Your task to perform on an android device: add a contact in the contacts app Image 0: 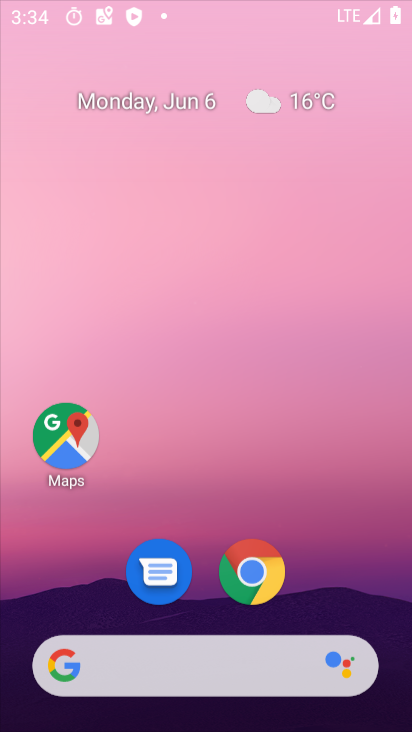
Step 0: drag from (368, 441) to (368, 204)
Your task to perform on an android device: add a contact in the contacts app Image 1: 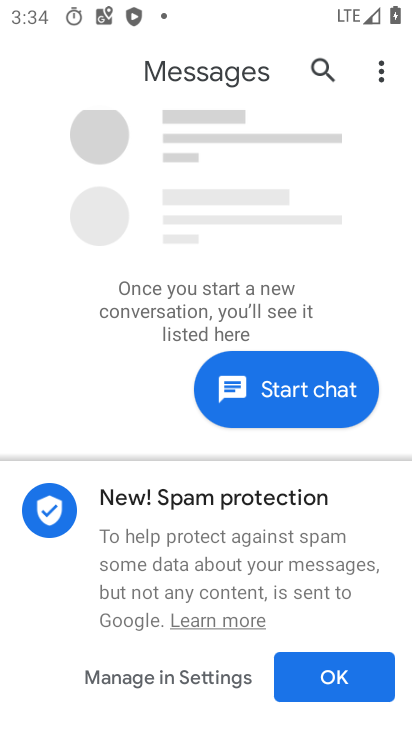
Step 1: press home button
Your task to perform on an android device: add a contact in the contacts app Image 2: 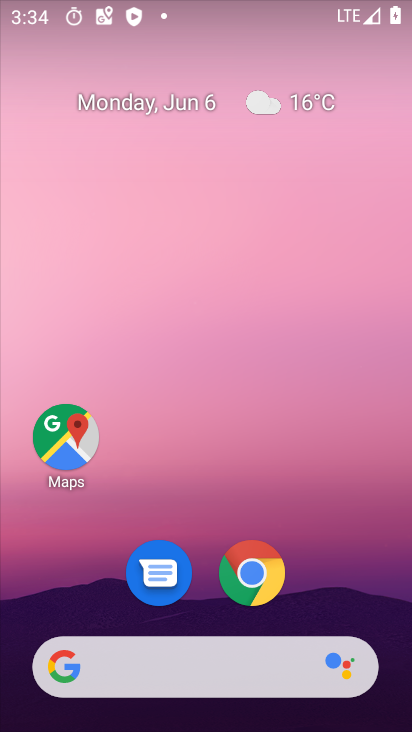
Step 2: drag from (360, 592) to (369, 202)
Your task to perform on an android device: add a contact in the contacts app Image 3: 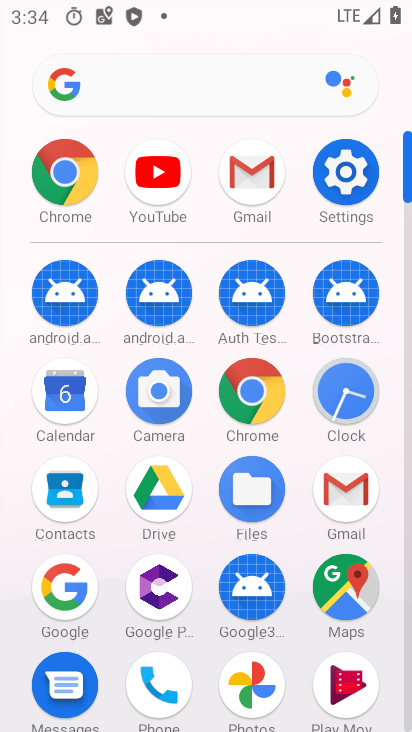
Step 3: click (78, 497)
Your task to perform on an android device: add a contact in the contacts app Image 4: 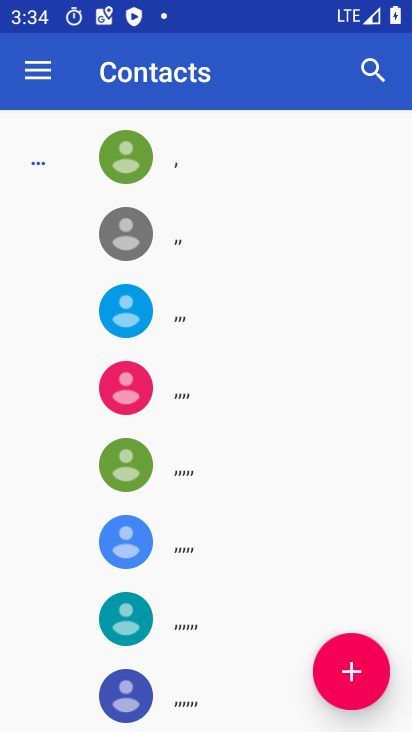
Step 4: click (341, 672)
Your task to perform on an android device: add a contact in the contacts app Image 5: 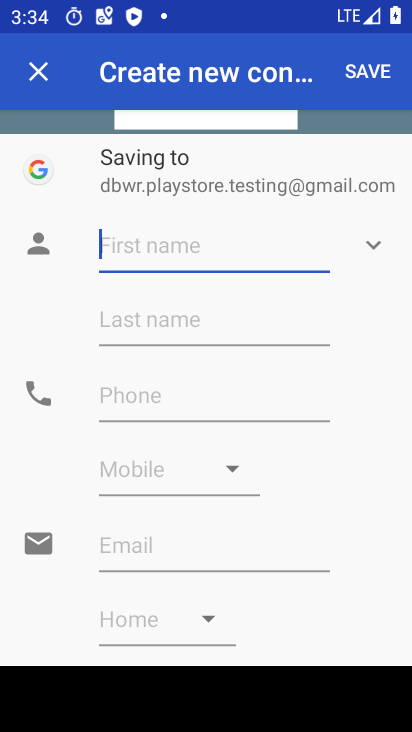
Step 5: click (196, 247)
Your task to perform on an android device: add a contact in the contacts app Image 6: 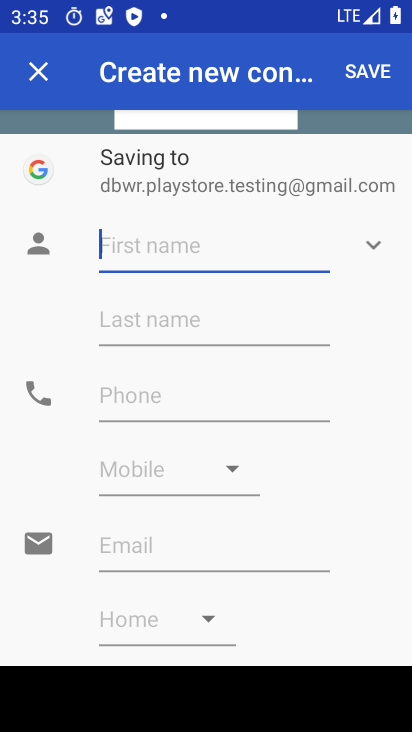
Step 6: type "bbbbb"
Your task to perform on an android device: add a contact in the contacts app Image 7: 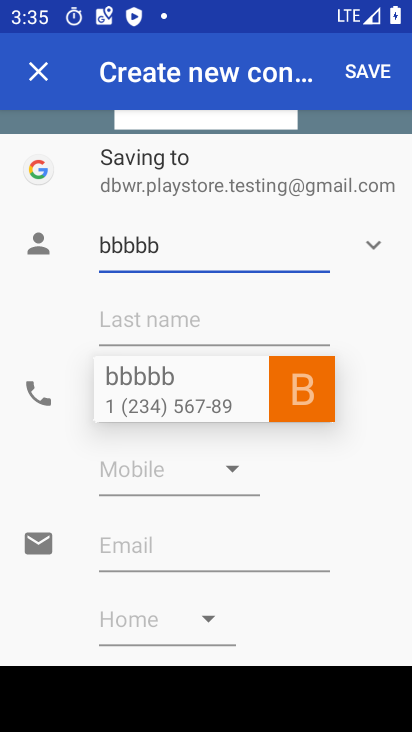
Step 7: click (409, 394)
Your task to perform on an android device: add a contact in the contacts app Image 8: 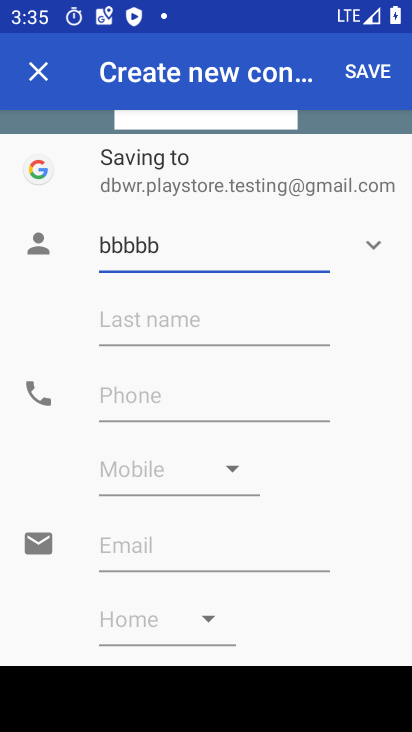
Step 8: click (214, 409)
Your task to perform on an android device: add a contact in the contacts app Image 9: 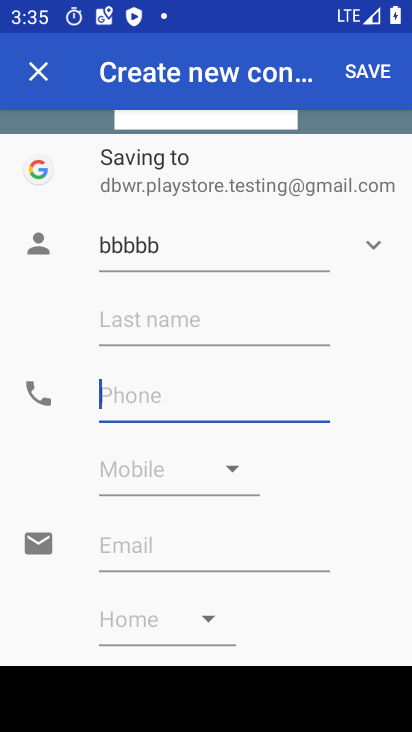
Step 9: type "12345677889"
Your task to perform on an android device: add a contact in the contacts app Image 10: 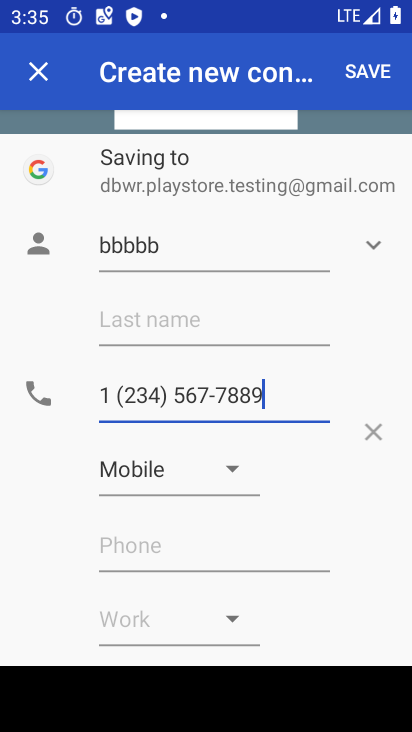
Step 10: click (371, 81)
Your task to perform on an android device: add a contact in the contacts app Image 11: 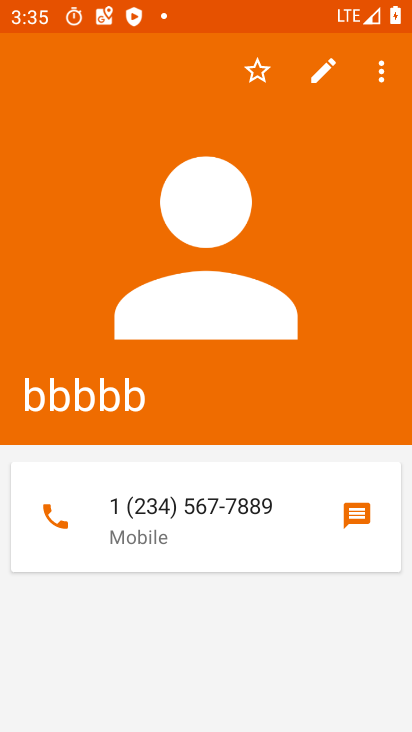
Step 11: task complete